Your task to perform on an android device: turn off sleep mode Image 0: 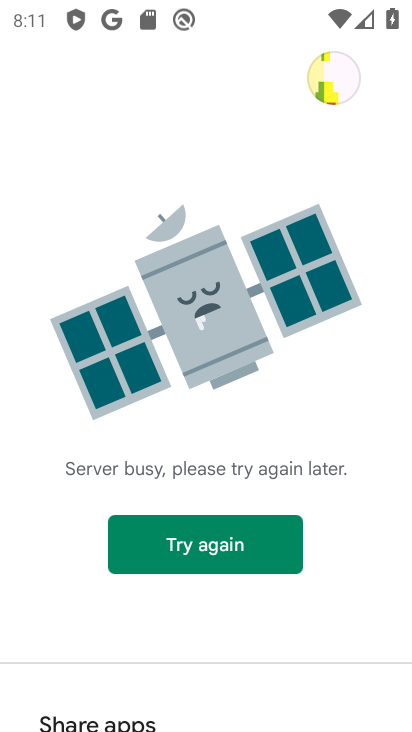
Step 0: press home button
Your task to perform on an android device: turn off sleep mode Image 1: 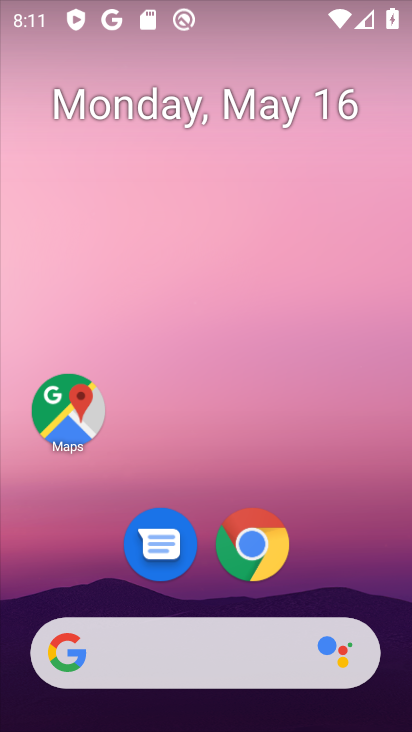
Step 1: drag from (335, 559) to (307, 285)
Your task to perform on an android device: turn off sleep mode Image 2: 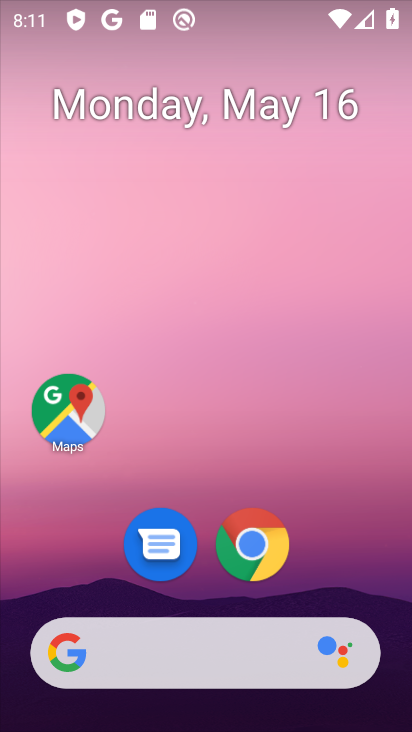
Step 2: drag from (325, 586) to (298, 13)
Your task to perform on an android device: turn off sleep mode Image 3: 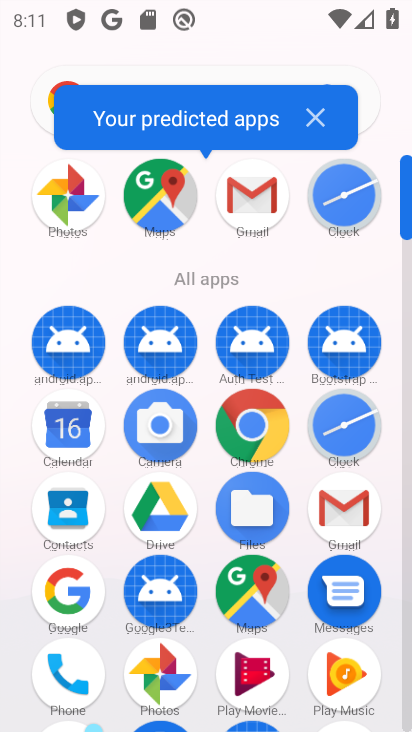
Step 3: click (410, 716)
Your task to perform on an android device: turn off sleep mode Image 4: 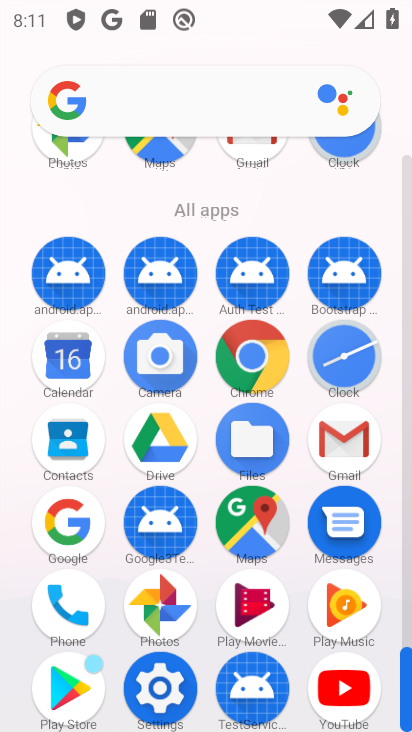
Step 4: click (173, 692)
Your task to perform on an android device: turn off sleep mode Image 5: 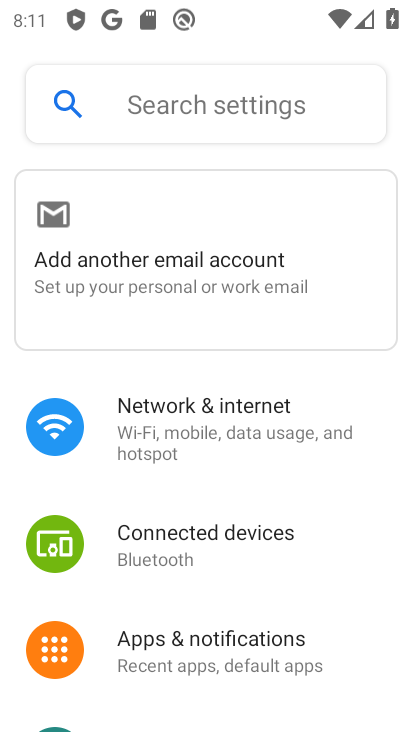
Step 5: drag from (281, 691) to (260, 332)
Your task to perform on an android device: turn off sleep mode Image 6: 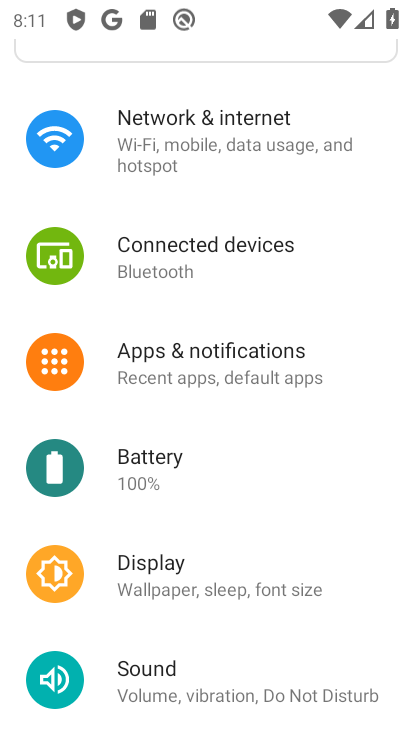
Step 6: click (242, 576)
Your task to perform on an android device: turn off sleep mode Image 7: 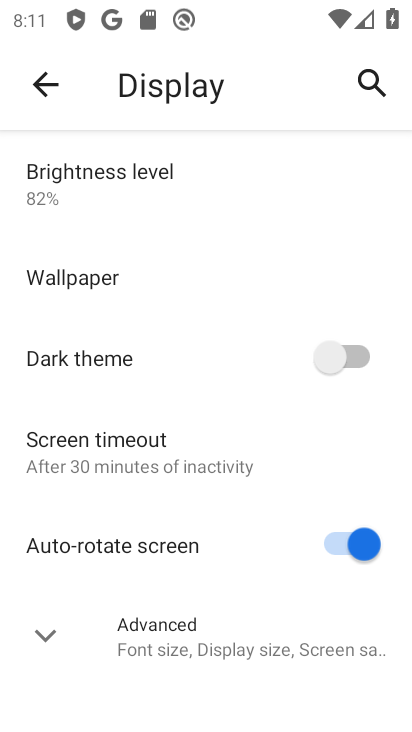
Step 7: task complete